Your task to perform on an android device: change the upload size in google photos Image 0: 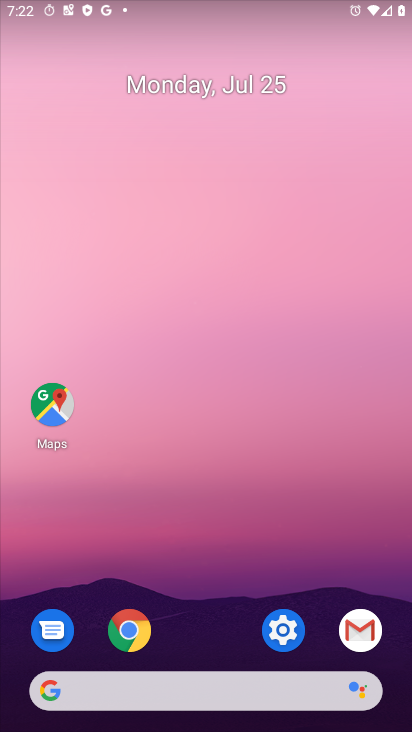
Step 0: drag from (273, 716) to (309, 112)
Your task to perform on an android device: change the upload size in google photos Image 1: 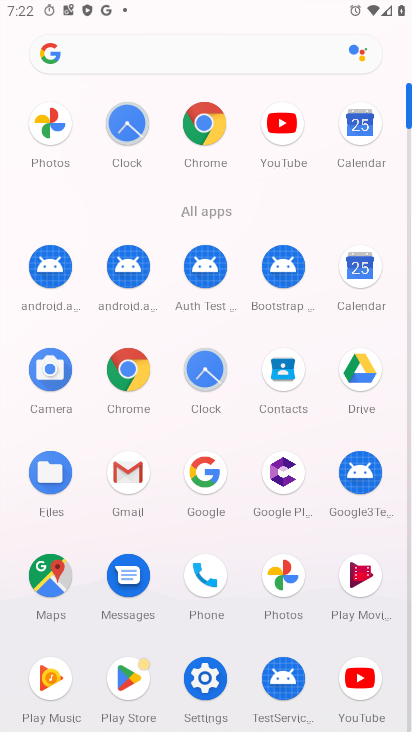
Step 1: click (282, 569)
Your task to perform on an android device: change the upload size in google photos Image 2: 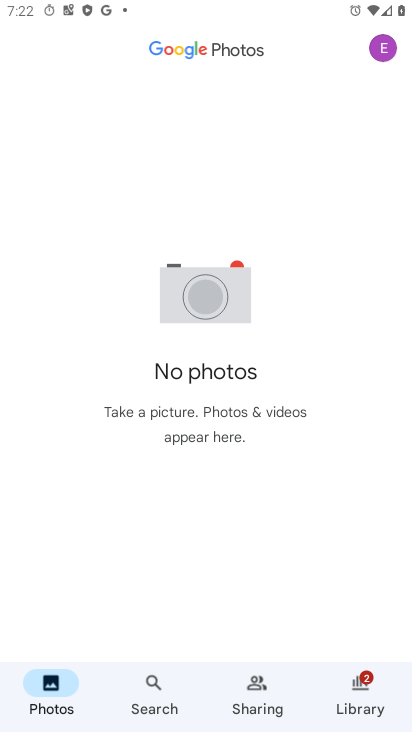
Step 2: click (381, 39)
Your task to perform on an android device: change the upload size in google photos Image 3: 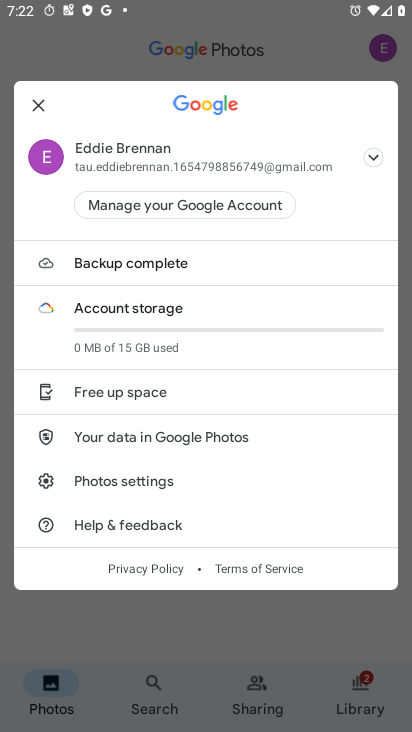
Step 3: click (124, 477)
Your task to perform on an android device: change the upload size in google photos Image 4: 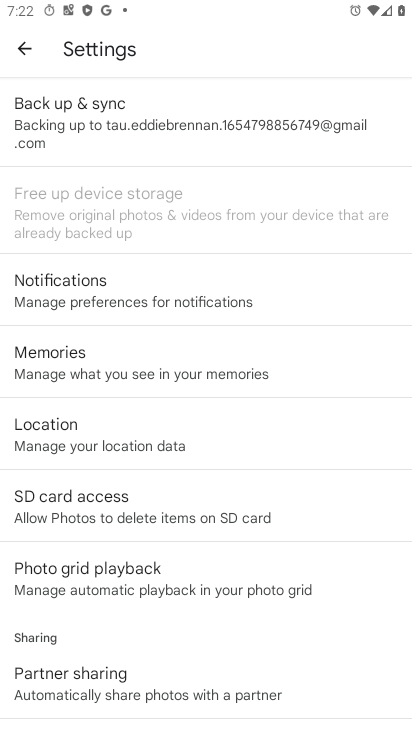
Step 4: click (116, 108)
Your task to perform on an android device: change the upload size in google photos Image 5: 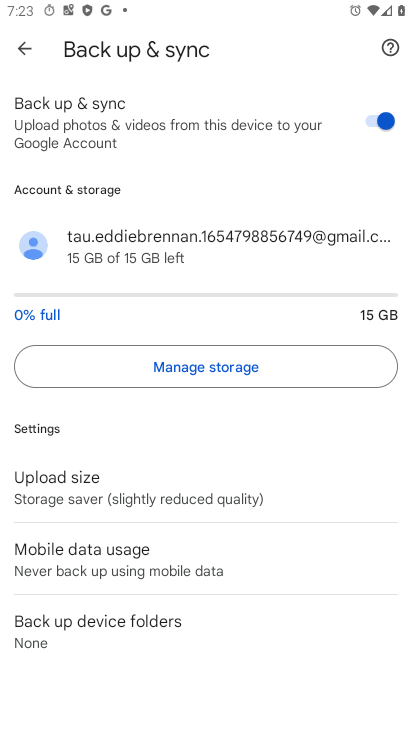
Step 5: click (129, 497)
Your task to perform on an android device: change the upload size in google photos Image 6: 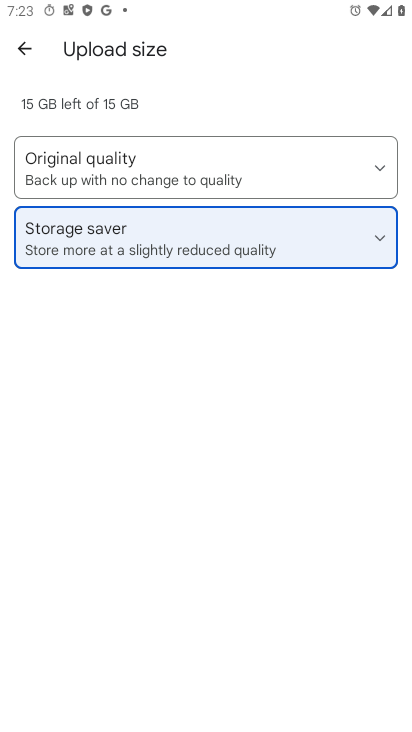
Step 6: task complete